Your task to perform on an android device: Go to privacy settings Image 0: 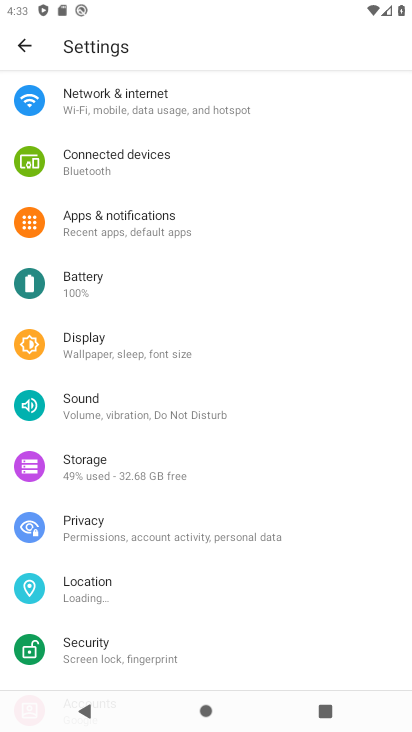
Step 0: press home button
Your task to perform on an android device: Go to privacy settings Image 1: 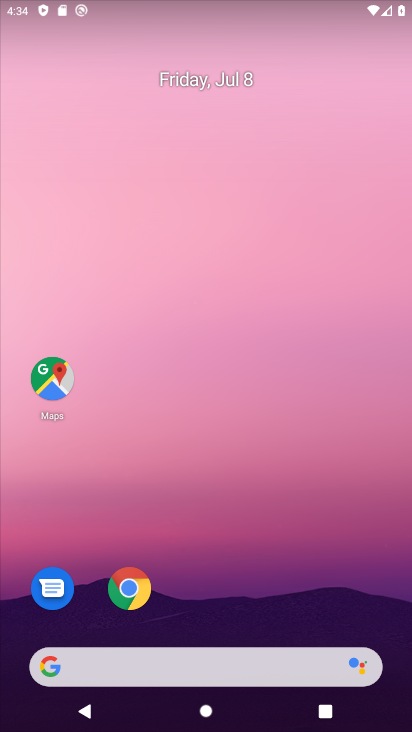
Step 1: drag from (287, 525) to (169, 2)
Your task to perform on an android device: Go to privacy settings Image 2: 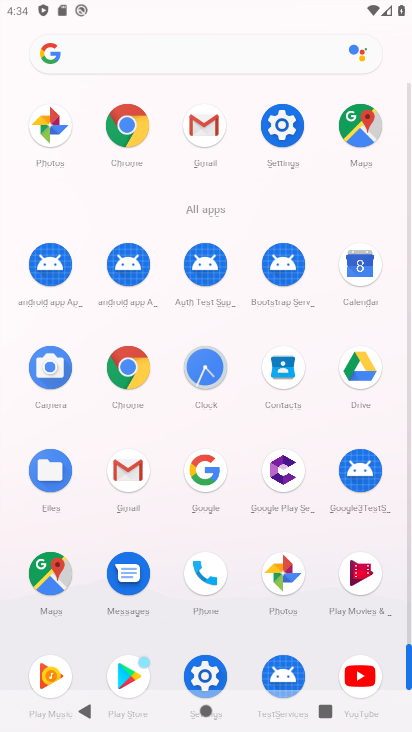
Step 2: drag from (243, 533) to (263, 319)
Your task to perform on an android device: Go to privacy settings Image 3: 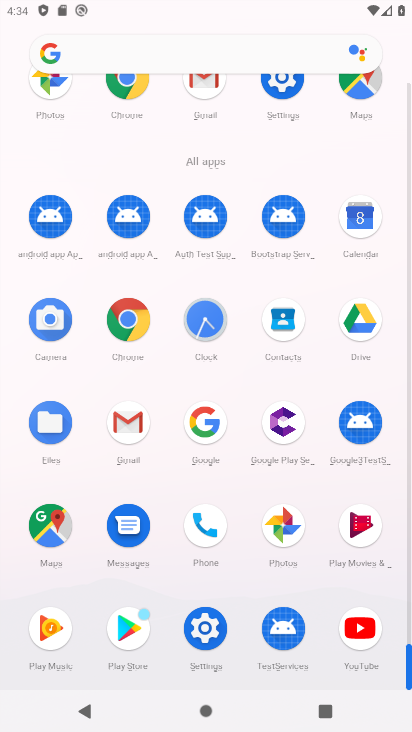
Step 3: click (184, 647)
Your task to perform on an android device: Go to privacy settings Image 4: 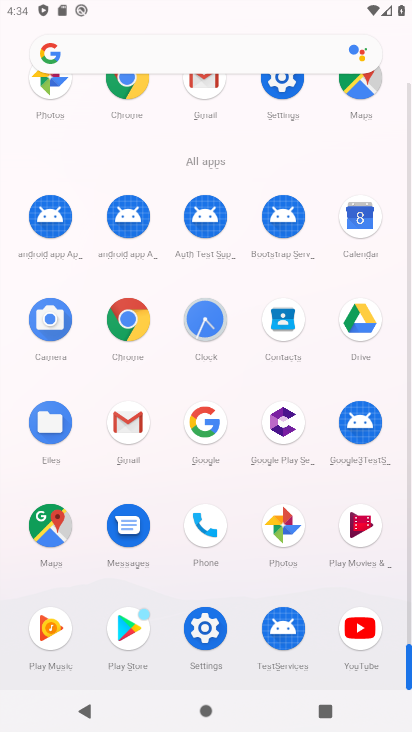
Step 4: click (207, 643)
Your task to perform on an android device: Go to privacy settings Image 5: 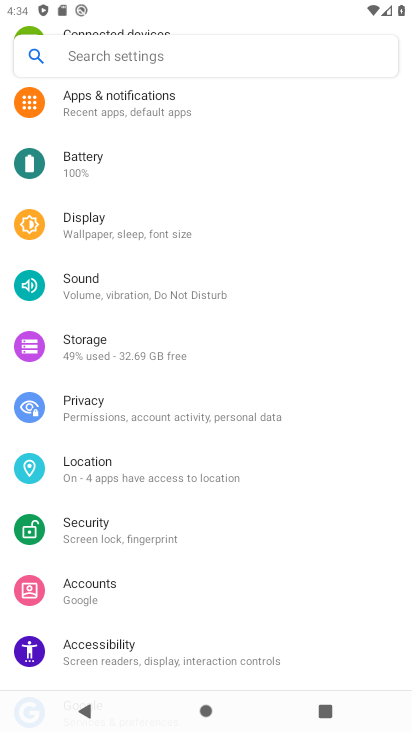
Step 5: click (142, 418)
Your task to perform on an android device: Go to privacy settings Image 6: 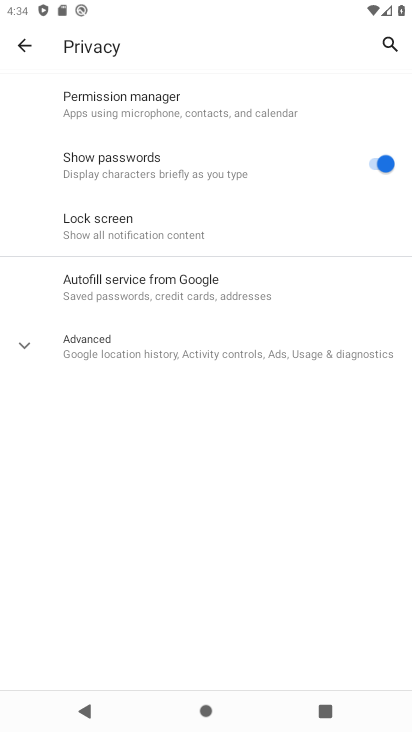
Step 6: task complete